Your task to perform on an android device: check the backup settings in the google photos Image 0: 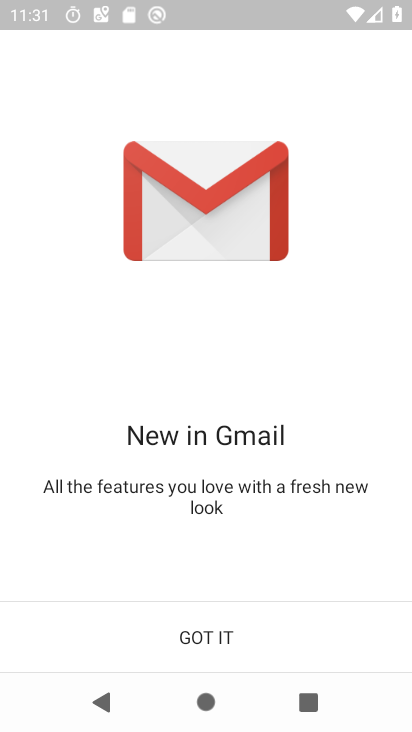
Step 0: click (225, 626)
Your task to perform on an android device: check the backup settings in the google photos Image 1: 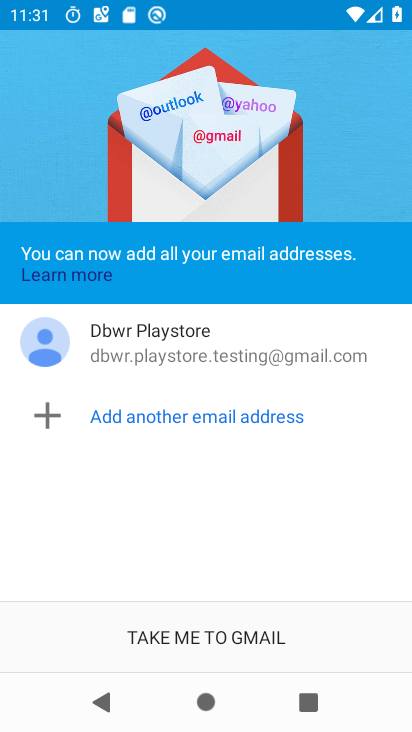
Step 1: click (223, 643)
Your task to perform on an android device: check the backup settings in the google photos Image 2: 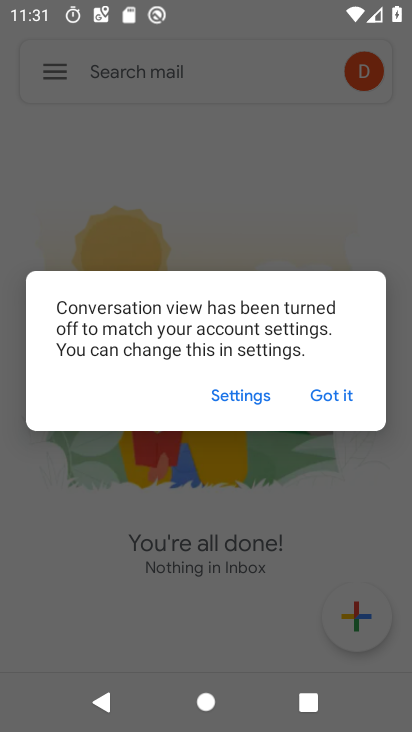
Step 2: click (330, 397)
Your task to perform on an android device: check the backup settings in the google photos Image 3: 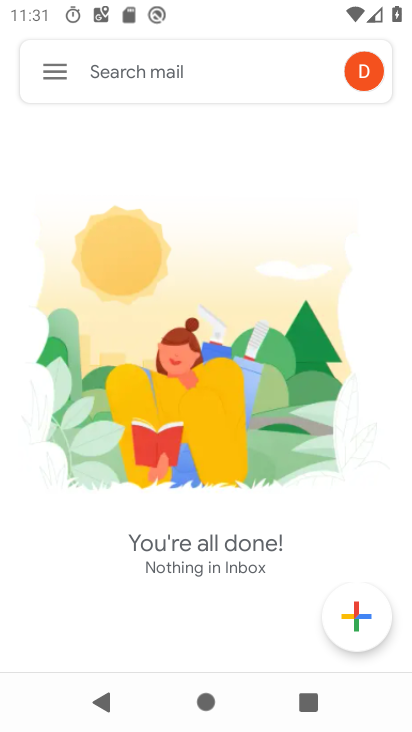
Step 3: press home button
Your task to perform on an android device: check the backup settings in the google photos Image 4: 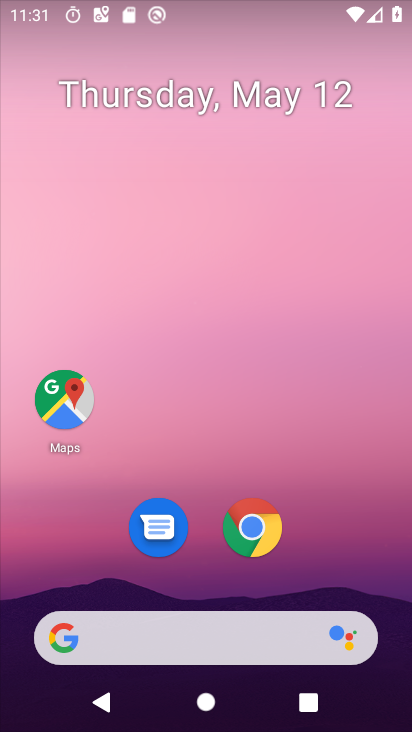
Step 4: drag from (320, 556) to (235, 122)
Your task to perform on an android device: check the backup settings in the google photos Image 5: 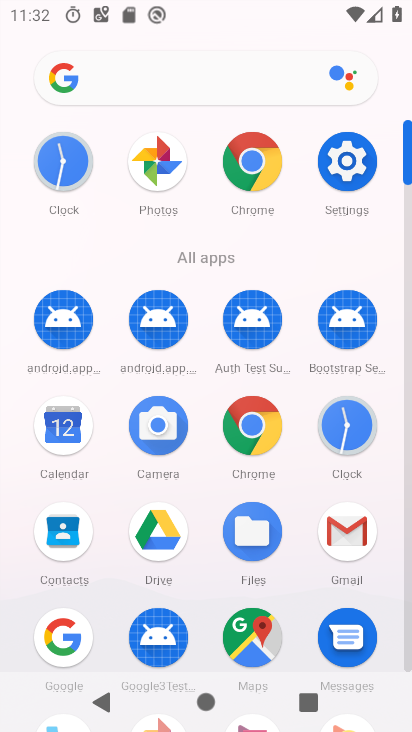
Step 5: click (158, 167)
Your task to perform on an android device: check the backup settings in the google photos Image 6: 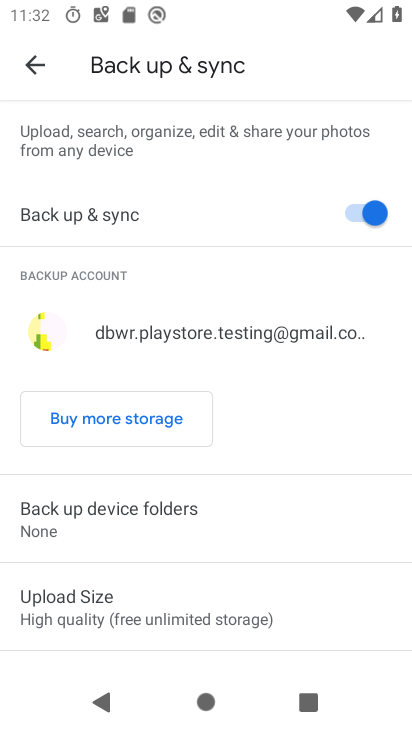
Step 6: task complete